Your task to perform on an android device: Add macbook pro to the cart on ebay.com, then select checkout. Image 0: 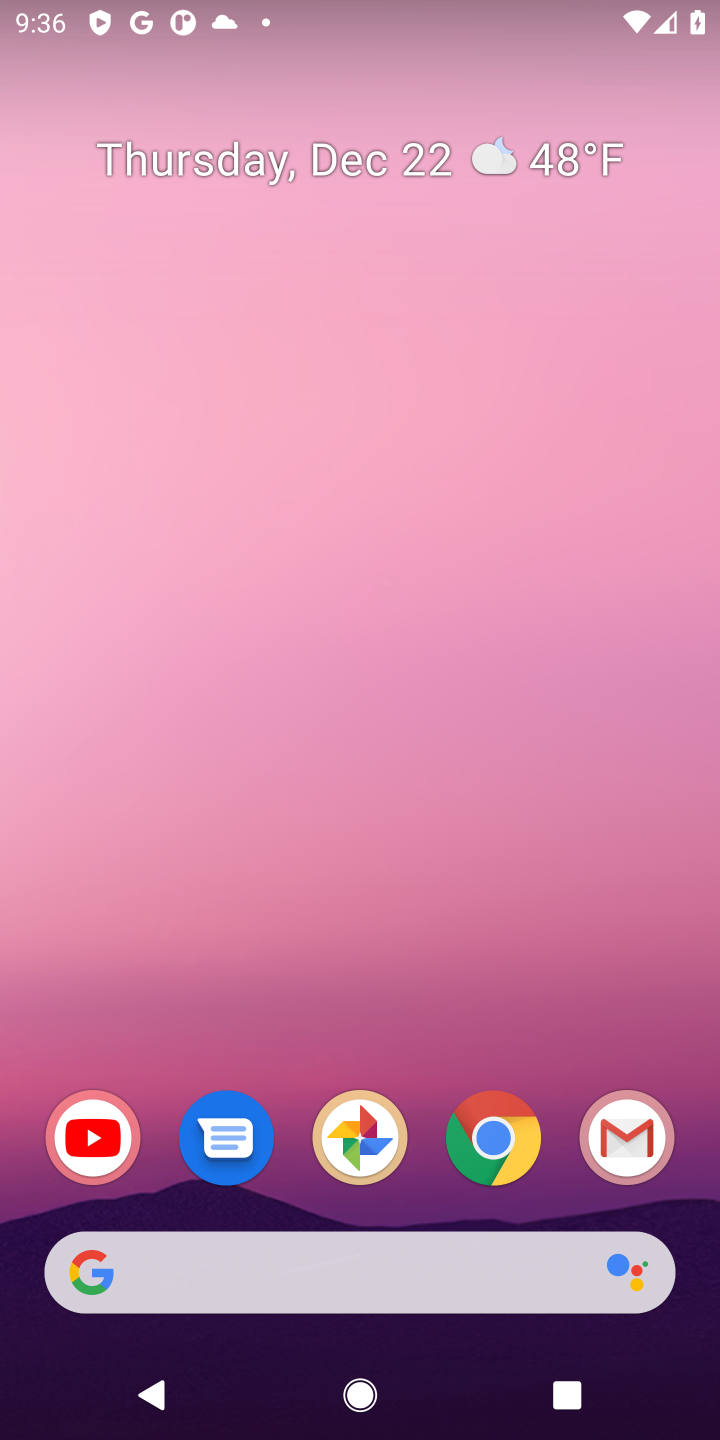
Step 0: click (519, 1150)
Your task to perform on an android device: Add macbook pro to the cart on ebay.com, then select checkout. Image 1: 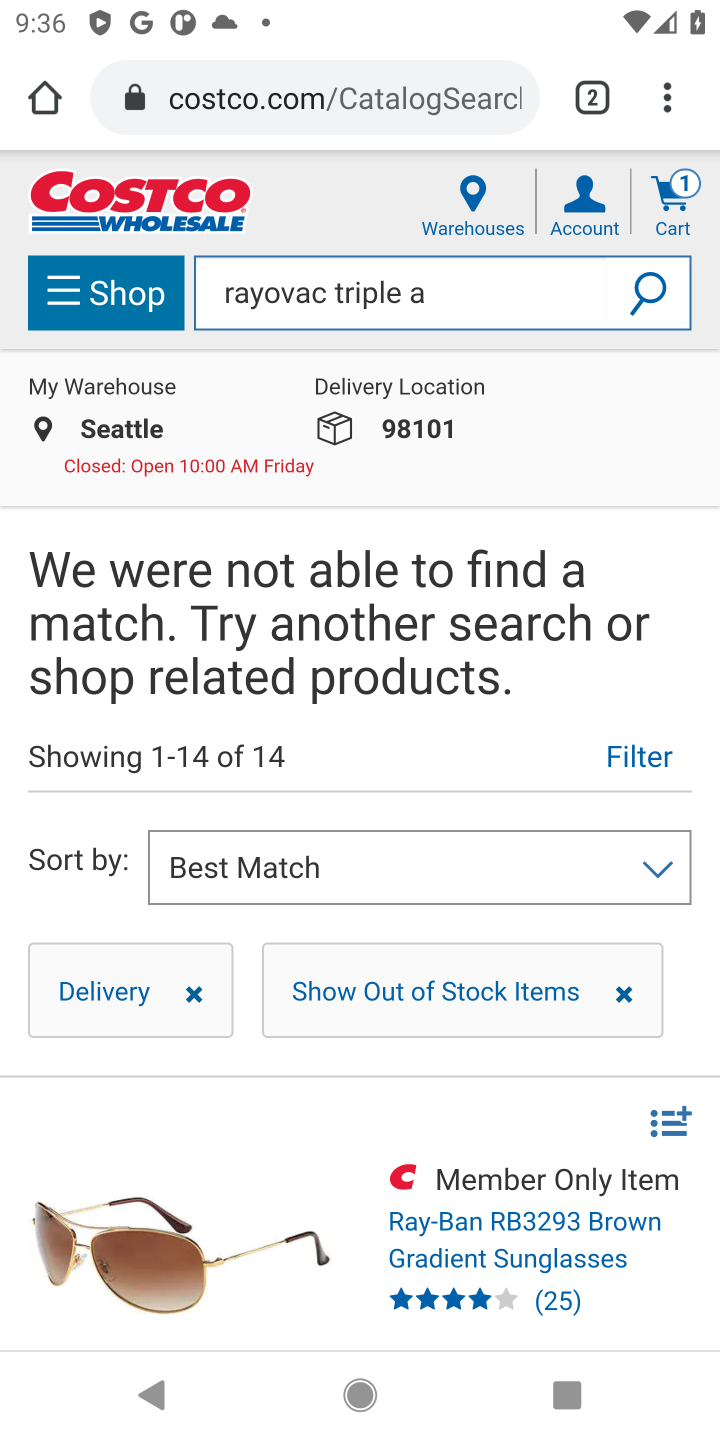
Step 1: click (270, 99)
Your task to perform on an android device: Add macbook pro to the cart on ebay.com, then select checkout. Image 2: 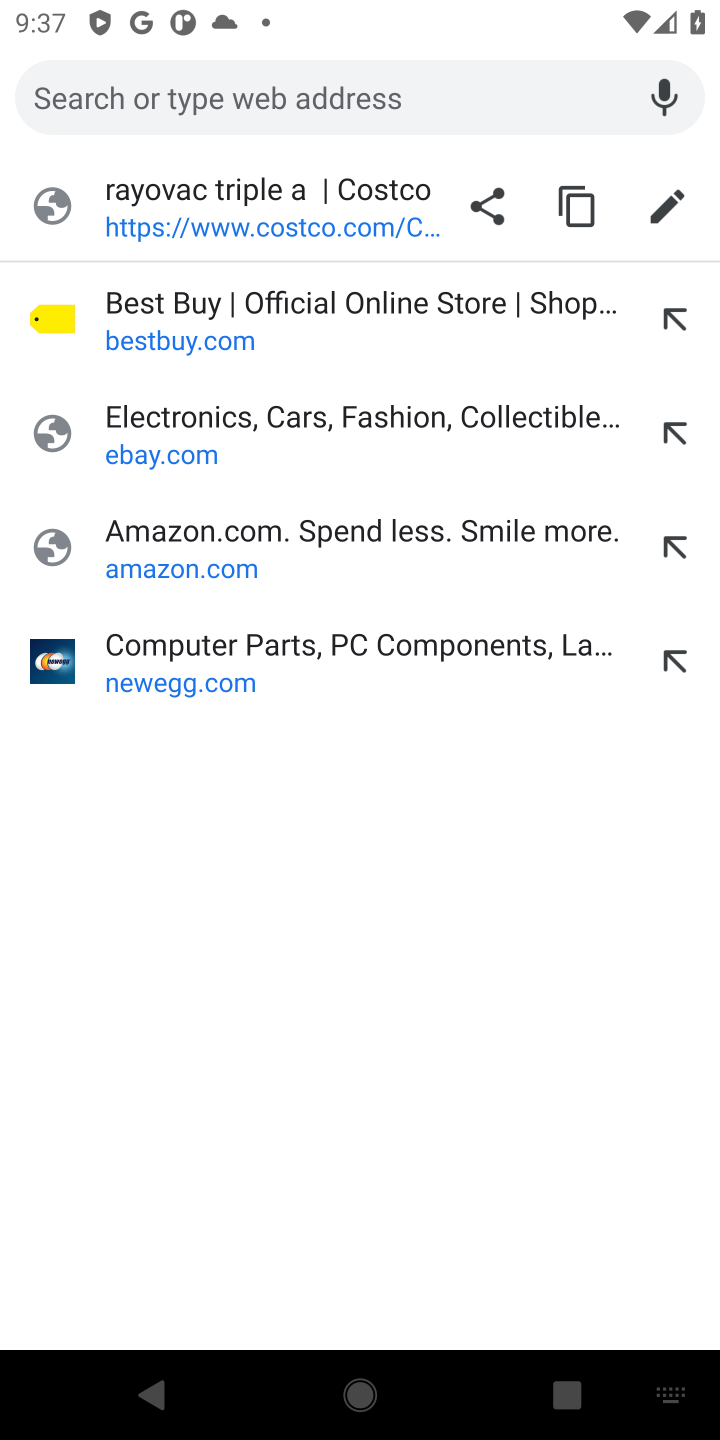
Step 2: type "ebay.com"
Your task to perform on an android device: Add macbook pro to the cart on ebay.com, then select checkout. Image 3: 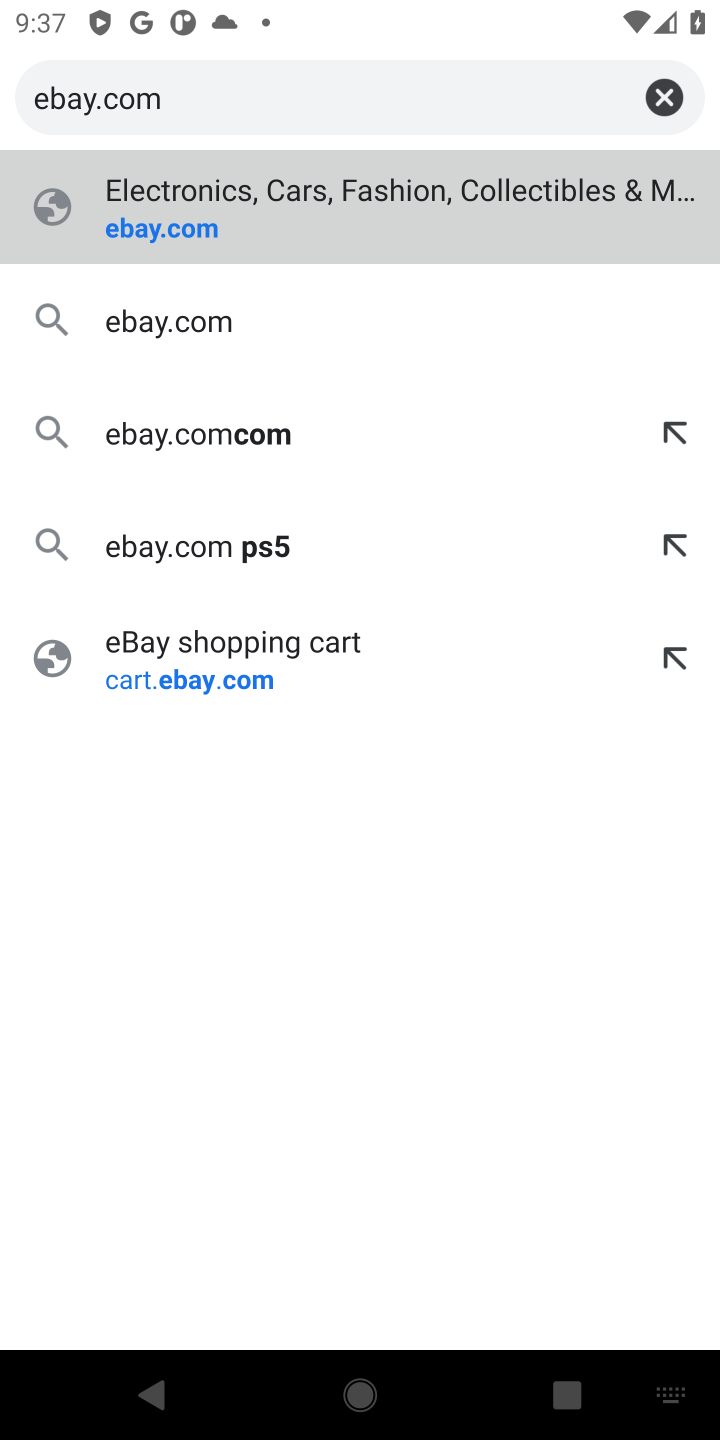
Step 3: click (269, 204)
Your task to perform on an android device: Add macbook pro to the cart on ebay.com, then select checkout. Image 4: 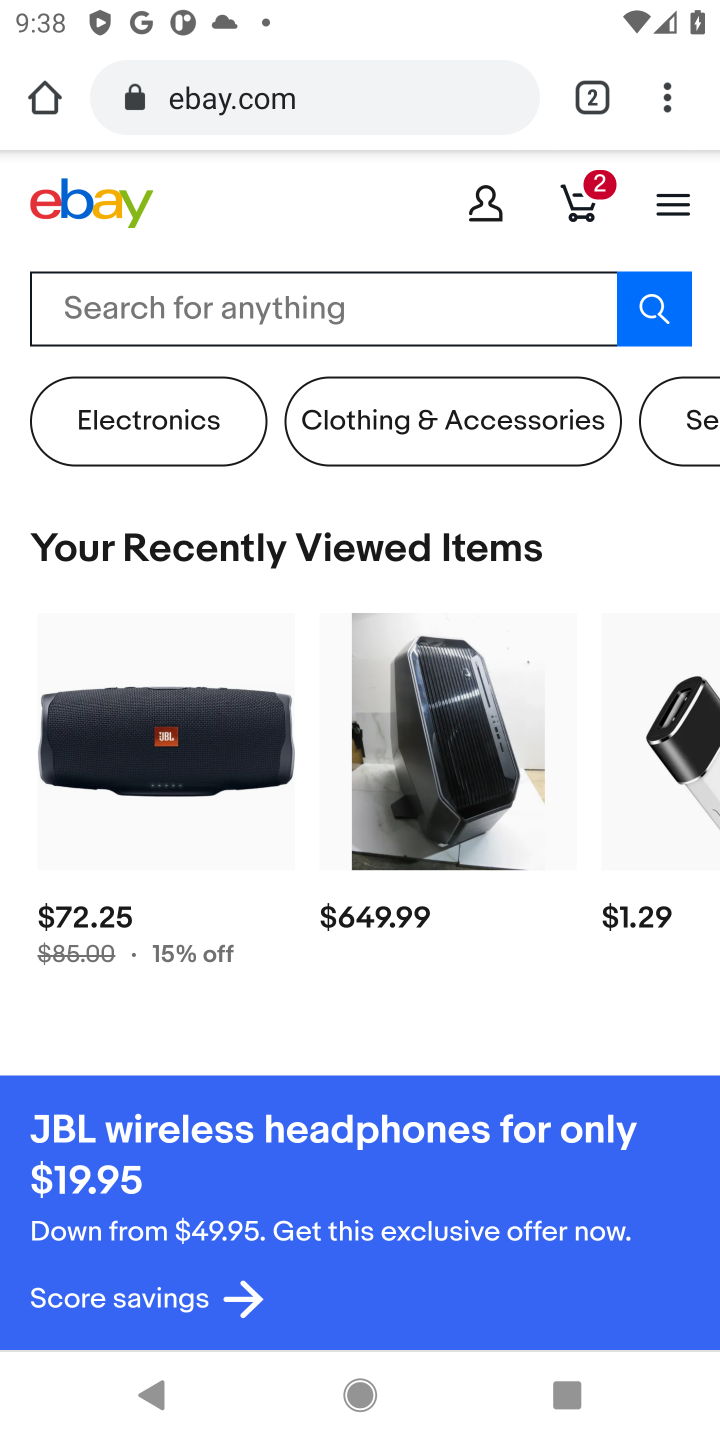
Step 4: click (376, 308)
Your task to perform on an android device: Add macbook pro to the cart on ebay.com, then select checkout. Image 5: 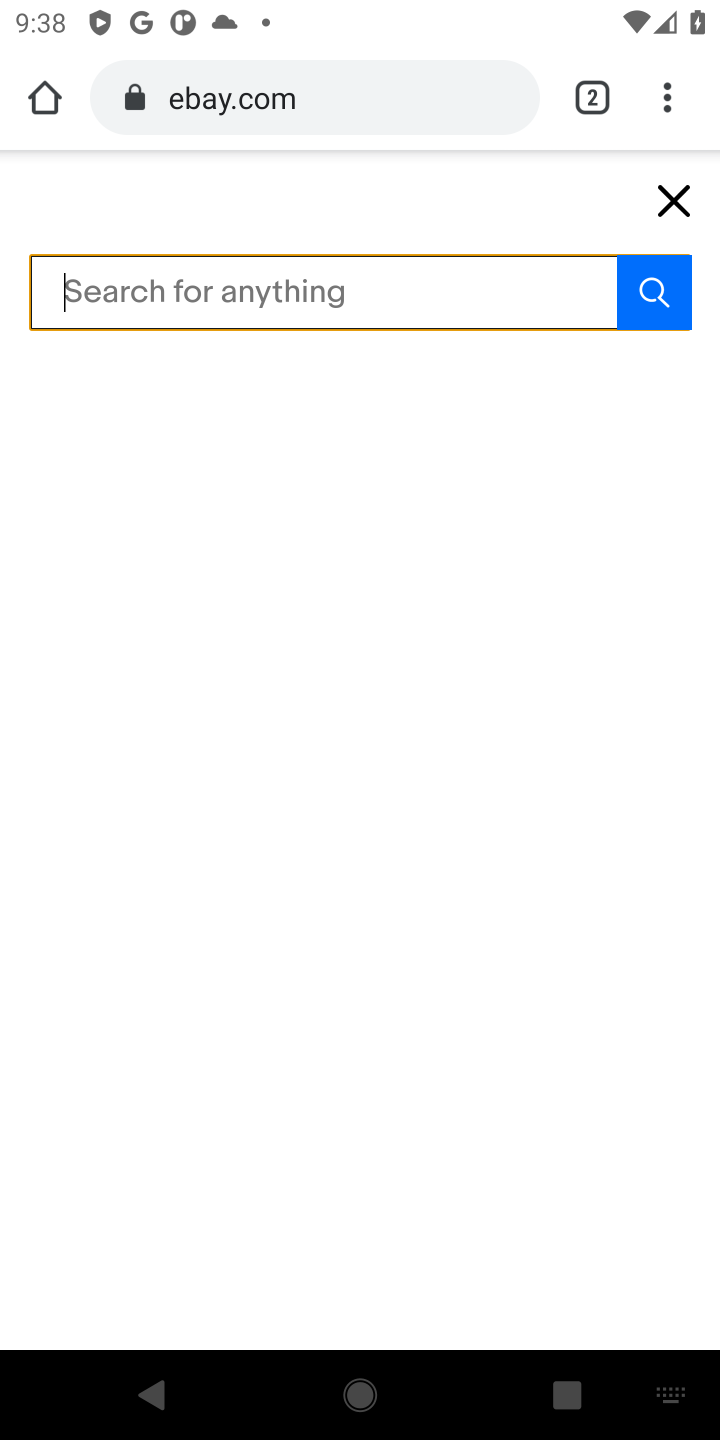
Step 5: type "macbook pro"
Your task to perform on an android device: Add macbook pro to the cart on ebay.com, then select checkout. Image 6: 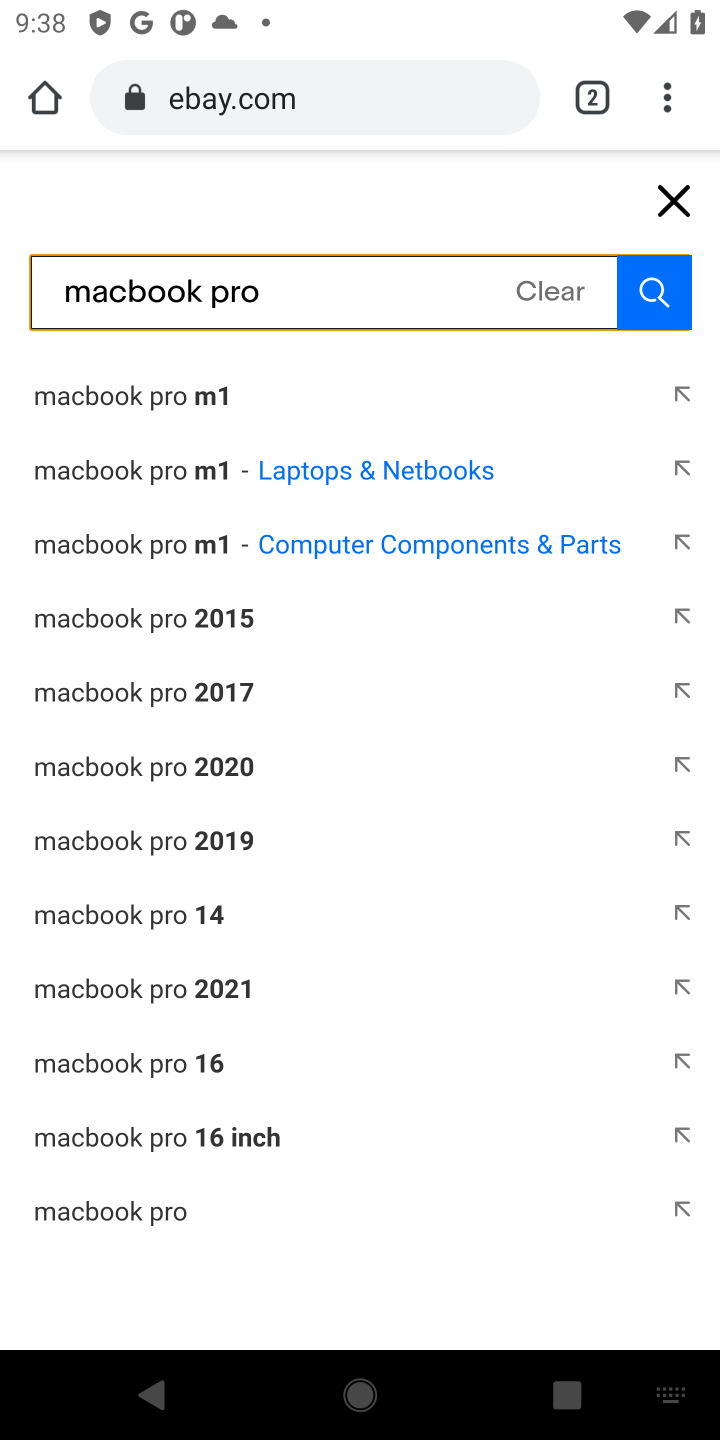
Step 6: click (666, 301)
Your task to perform on an android device: Add macbook pro to the cart on ebay.com, then select checkout. Image 7: 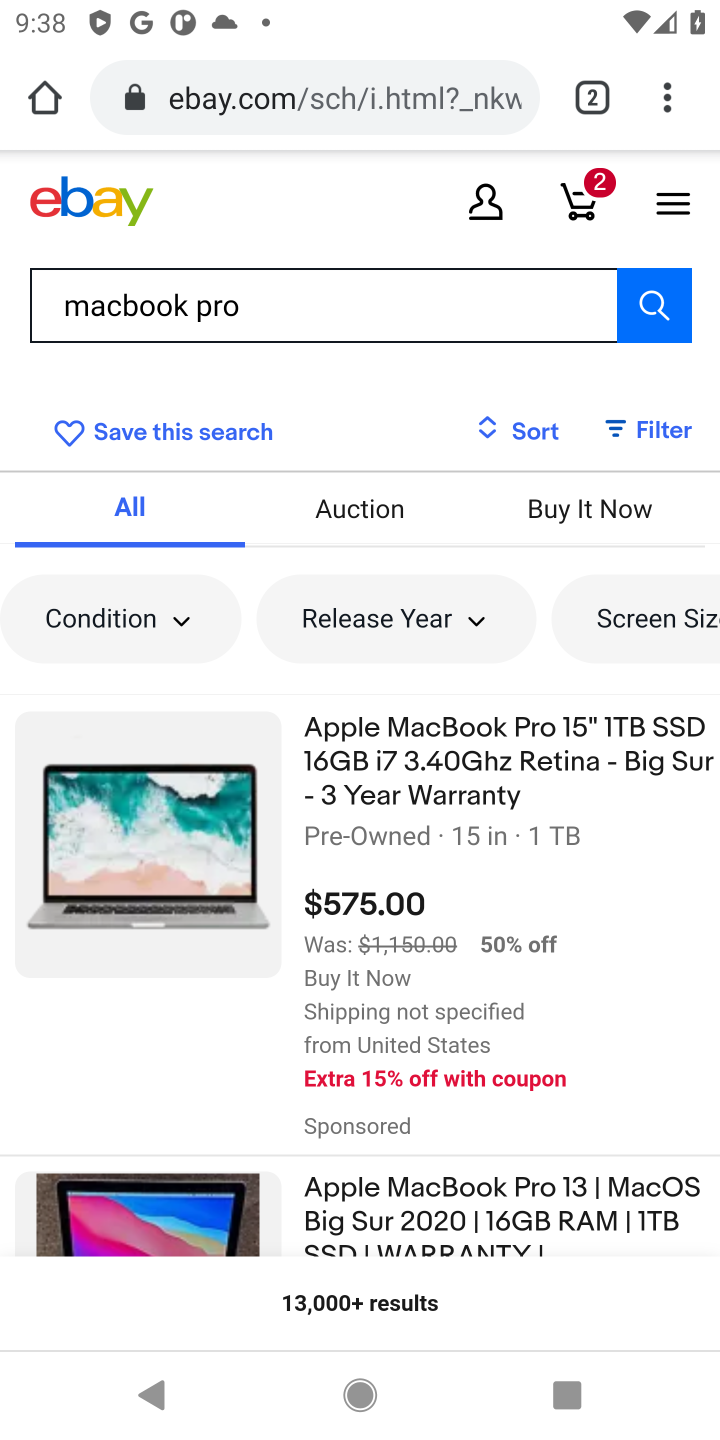
Step 7: click (444, 787)
Your task to perform on an android device: Add macbook pro to the cart on ebay.com, then select checkout. Image 8: 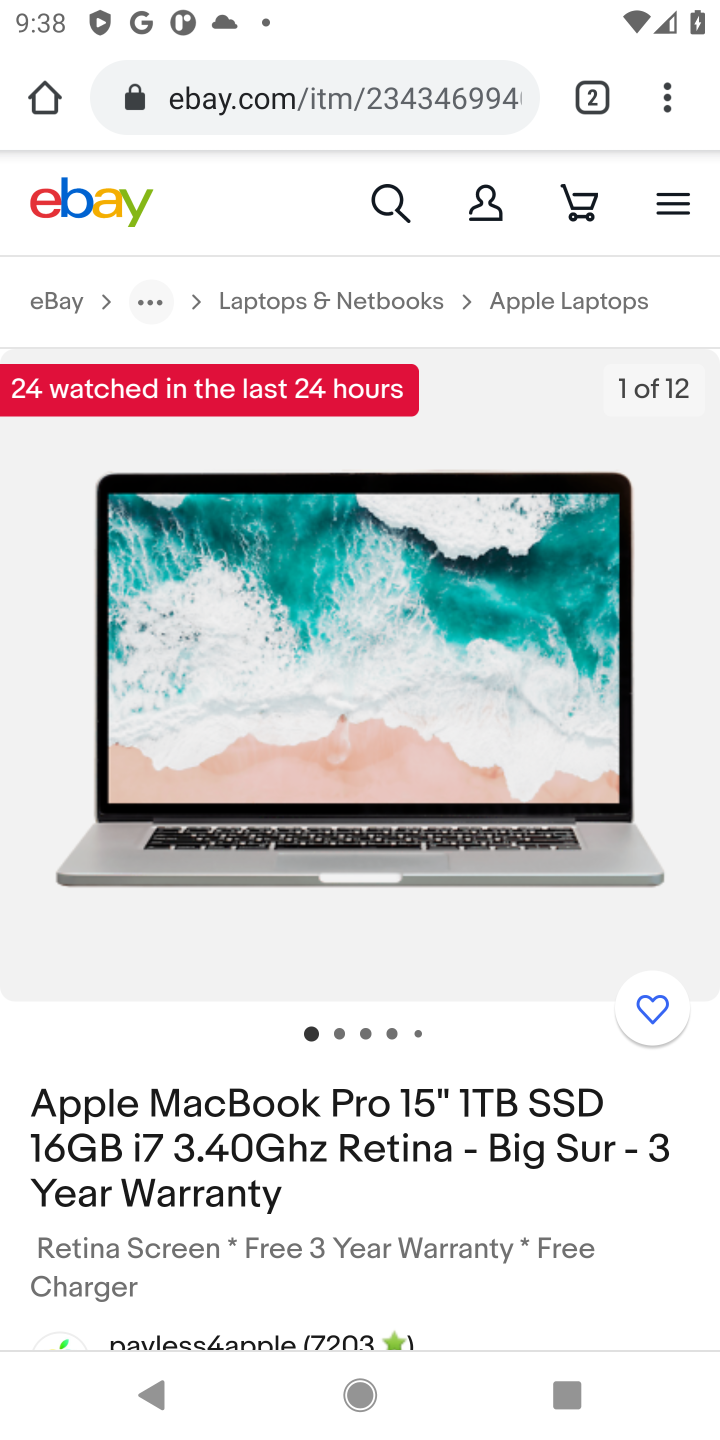
Step 8: drag from (493, 1098) to (481, 479)
Your task to perform on an android device: Add macbook pro to the cart on ebay.com, then select checkout. Image 9: 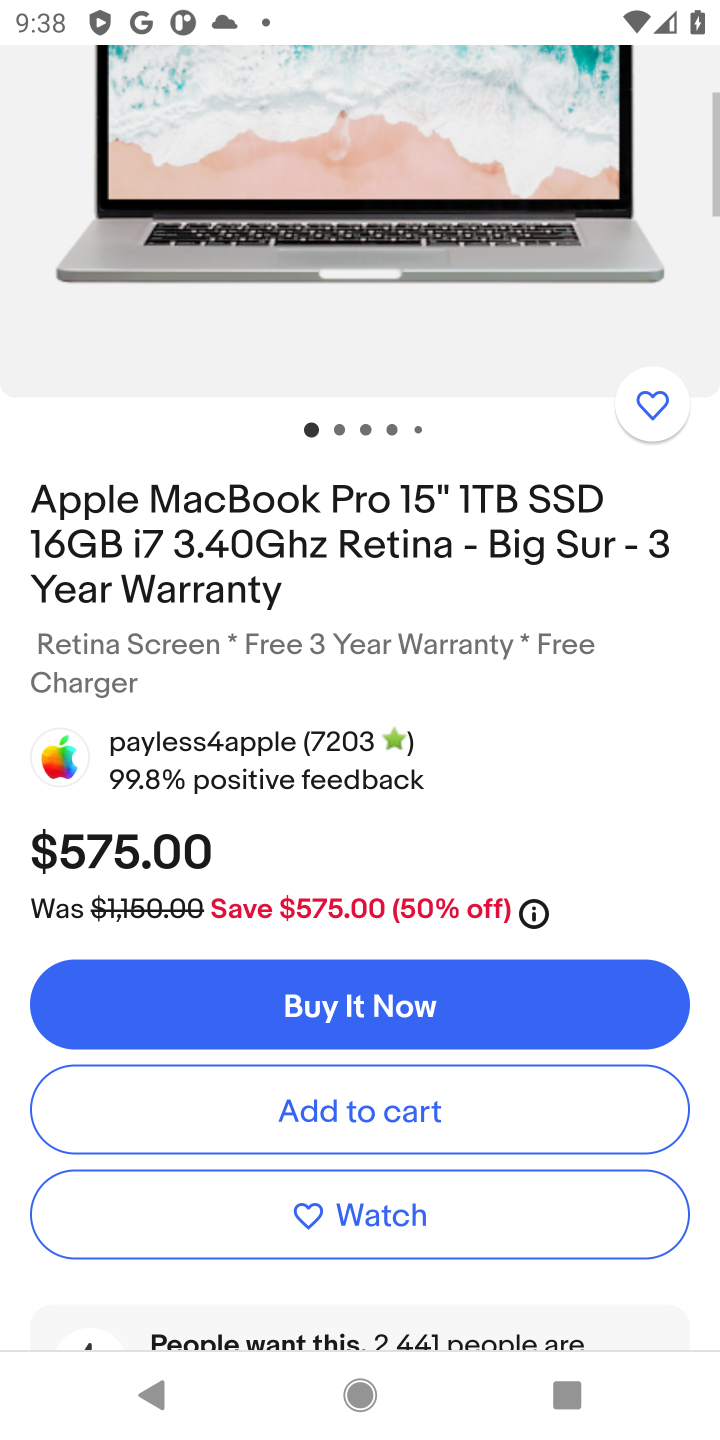
Step 9: click (404, 1112)
Your task to perform on an android device: Add macbook pro to the cart on ebay.com, then select checkout. Image 10: 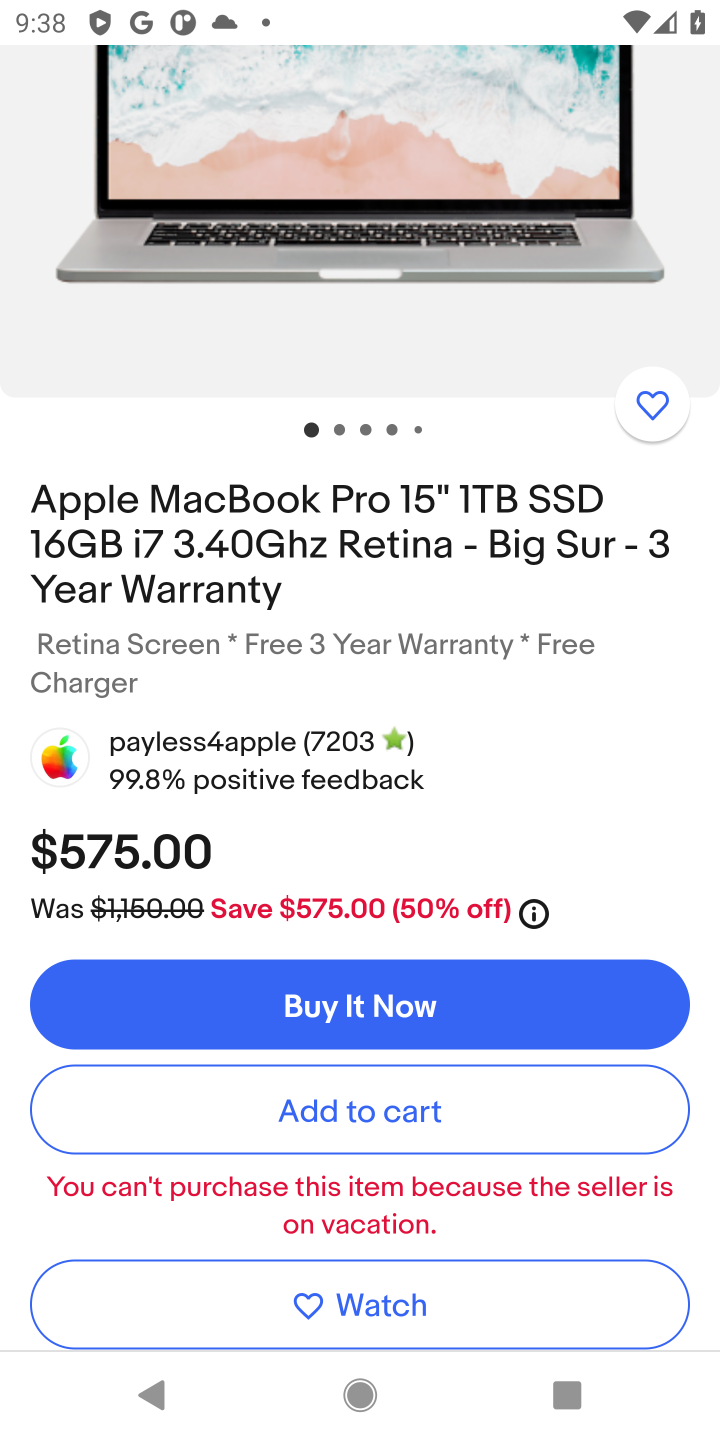
Step 10: task complete